Your task to perform on an android device: toggle improve location accuracy Image 0: 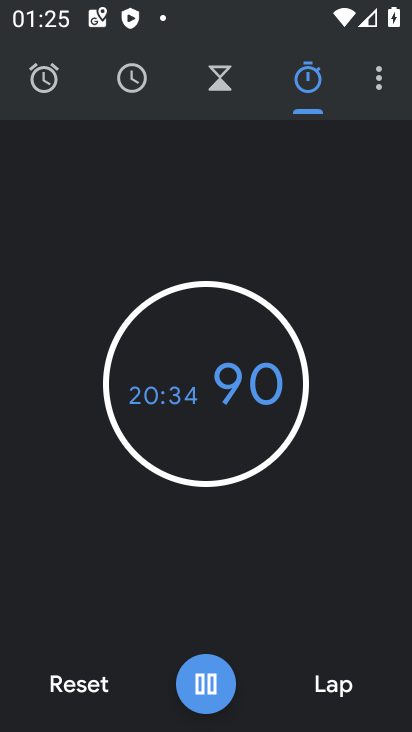
Step 0: press home button
Your task to perform on an android device: toggle improve location accuracy Image 1: 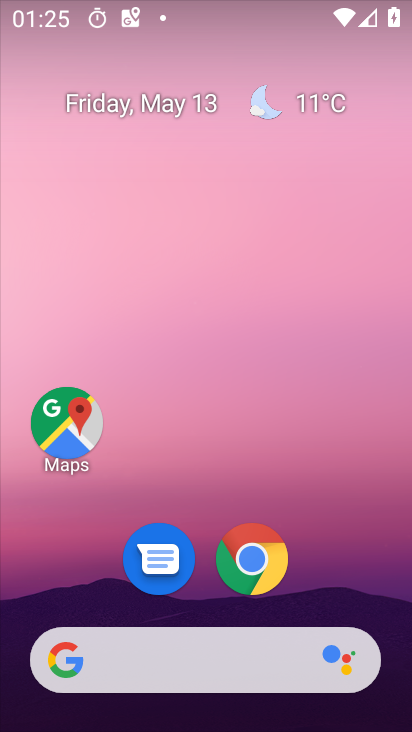
Step 1: drag from (352, 556) to (337, 71)
Your task to perform on an android device: toggle improve location accuracy Image 2: 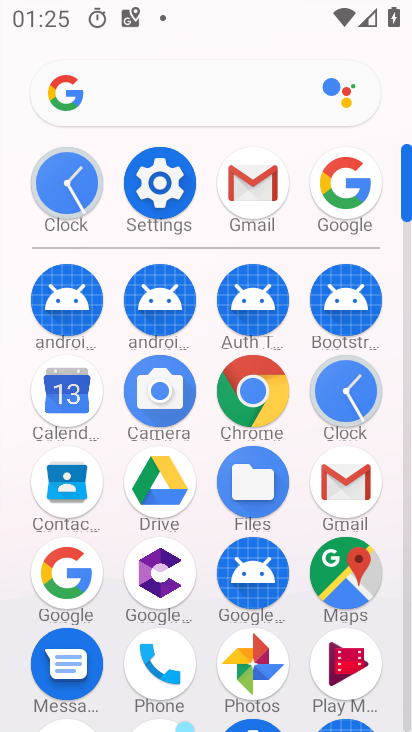
Step 2: click (158, 179)
Your task to perform on an android device: toggle improve location accuracy Image 3: 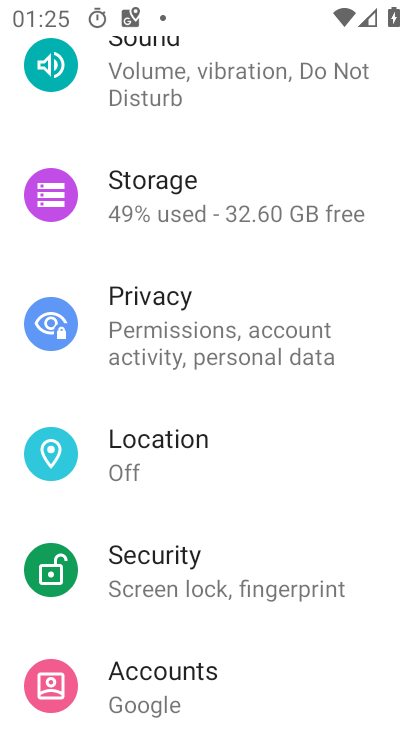
Step 3: click (192, 460)
Your task to perform on an android device: toggle improve location accuracy Image 4: 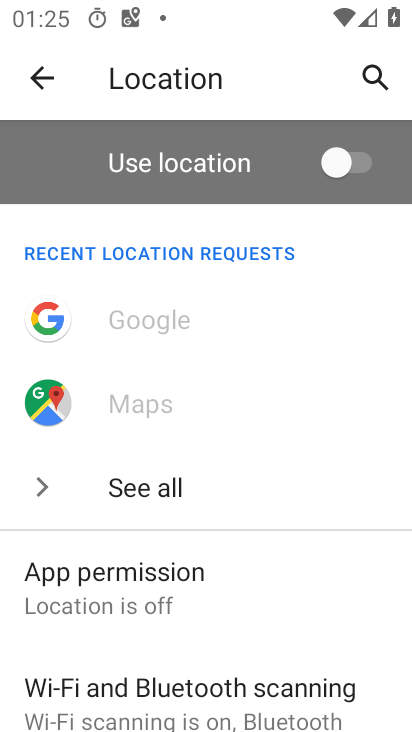
Step 4: drag from (215, 633) to (253, 145)
Your task to perform on an android device: toggle improve location accuracy Image 5: 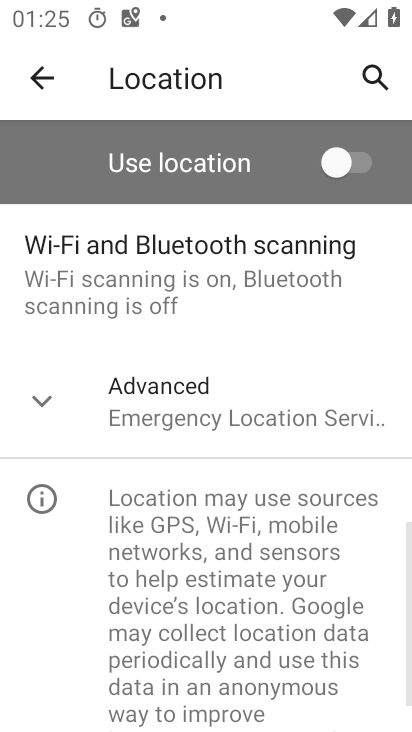
Step 5: click (173, 436)
Your task to perform on an android device: toggle improve location accuracy Image 6: 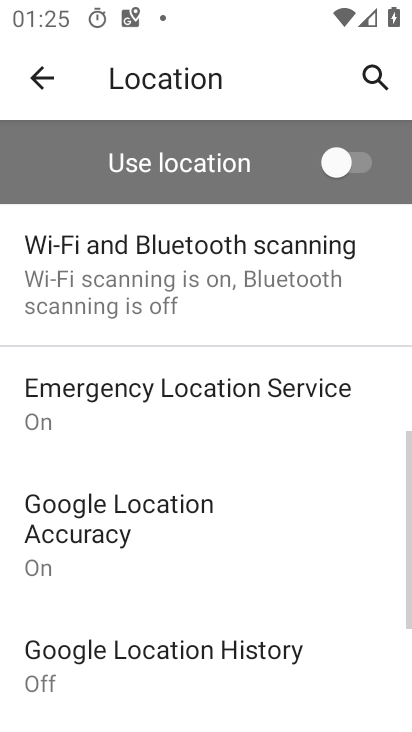
Step 6: click (174, 553)
Your task to perform on an android device: toggle improve location accuracy Image 7: 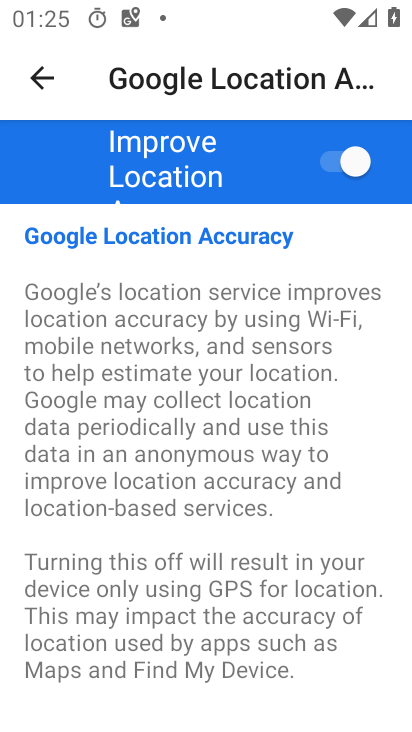
Step 7: click (345, 168)
Your task to perform on an android device: toggle improve location accuracy Image 8: 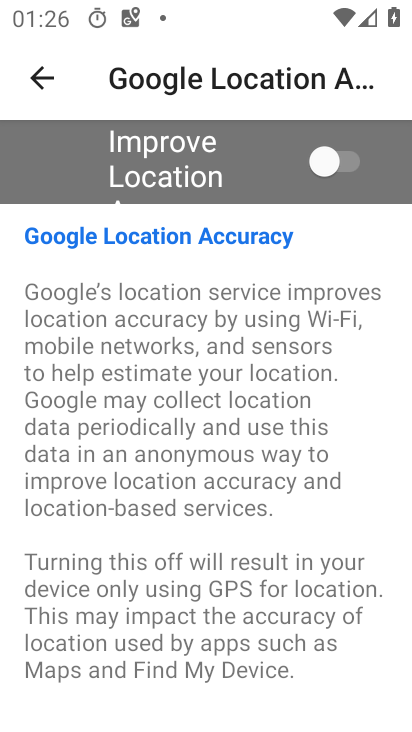
Step 8: task complete